Your task to perform on an android device: turn pop-ups on in chrome Image 0: 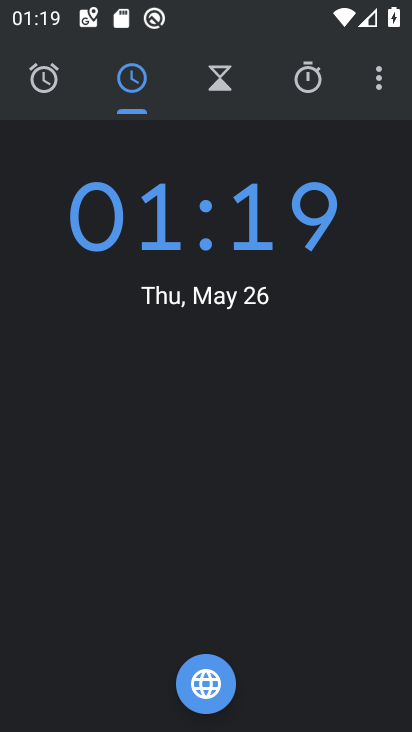
Step 0: press home button
Your task to perform on an android device: turn pop-ups on in chrome Image 1: 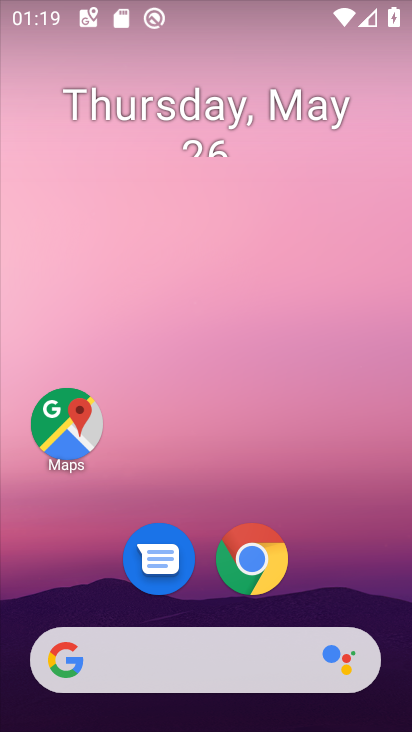
Step 1: click (257, 550)
Your task to perform on an android device: turn pop-ups on in chrome Image 2: 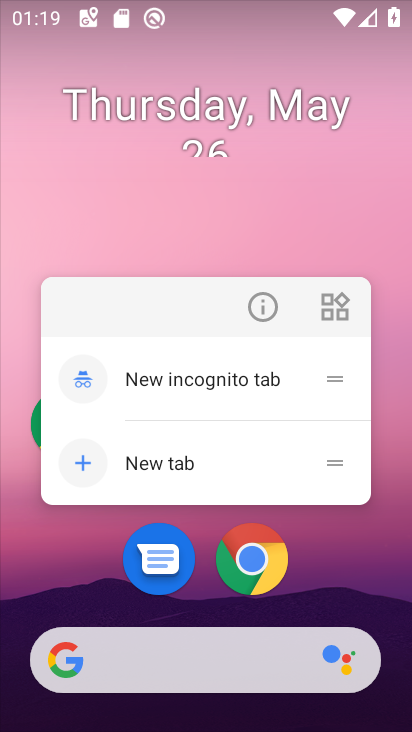
Step 2: click (260, 571)
Your task to perform on an android device: turn pop-ups on in chrome Image 3: 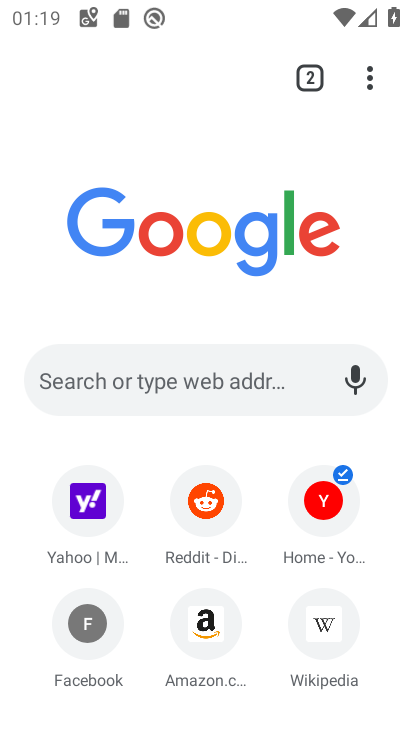
Step 3: click (369, 81)
Your task to perform on an android device: turn pop-ups on in chrome Image 4: 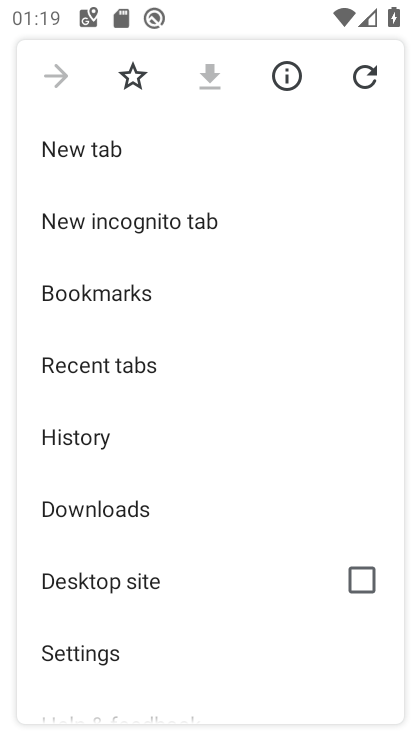
Step 4: click (119, 657)
Your task to perform on an android device: turn pop-ups on in chrome Image 5: 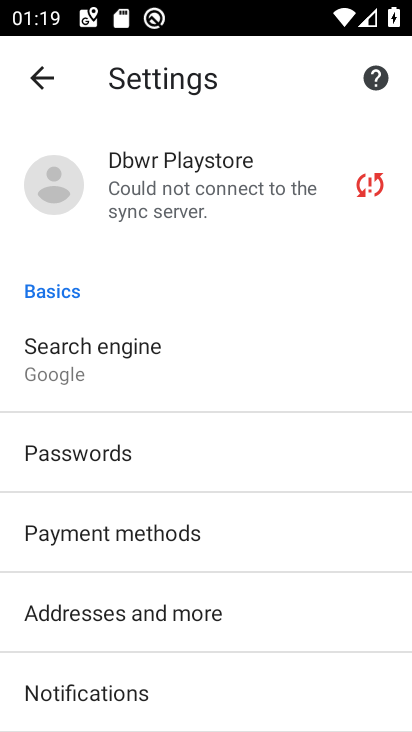
Step 5: drag from (250, 382) to (258, 77)
Your task to perform on an android device: turn pop-ups on in chrome Image 6: 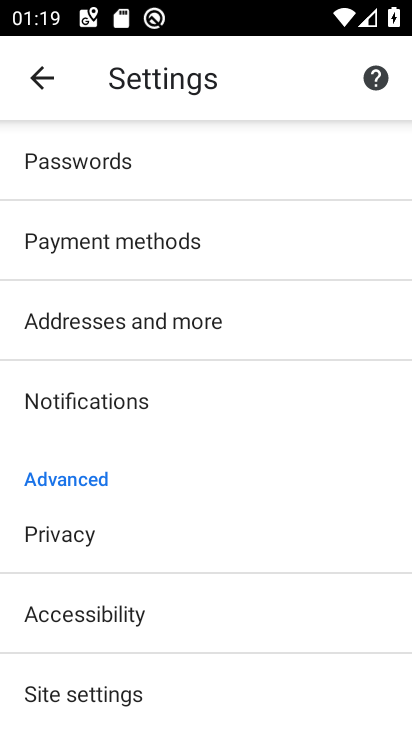
Step 6: drag from (245, 534) to (244, 236)
Your task to perform on an android device: turn pop-ups on in chrome Image 7: 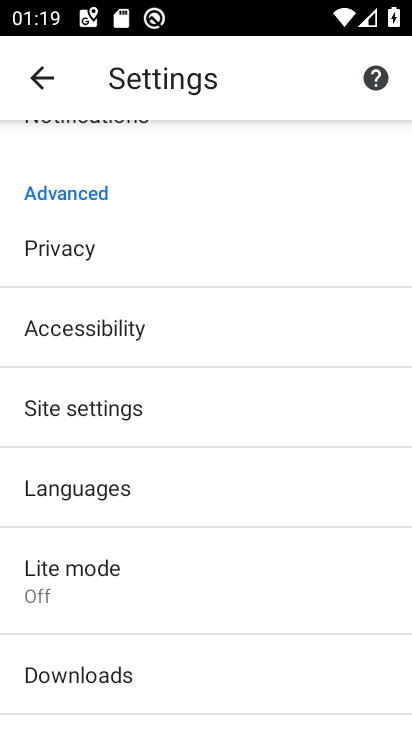
Step 7: click (108, 402)
Your task to perform on an android device: turn pop-ups on in chrome Image 8: 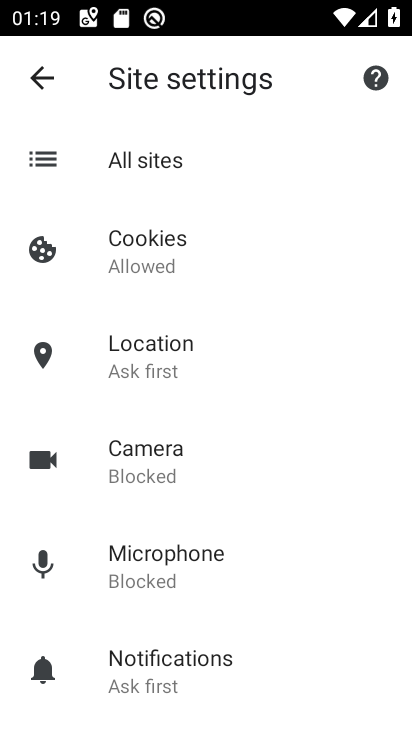
Step 8: drag from (297, 623) to (270, 233)
Your task to perform on an android device: turn pop-ups on in chrome Image 9: 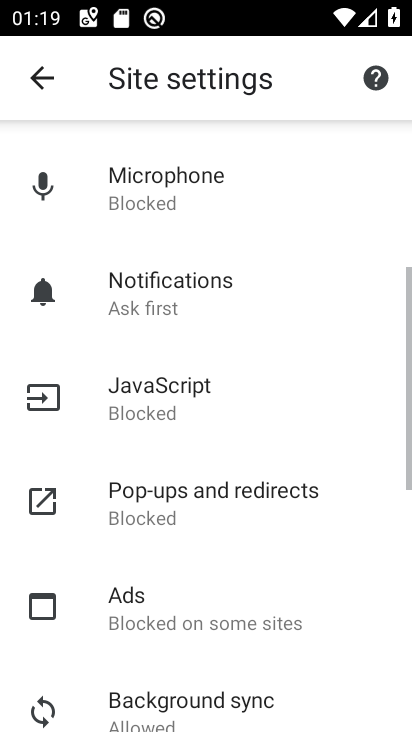
Step 9: click (234, 510)
Your task to perform on an android device: turn pop-ups on in chrome Image 10: 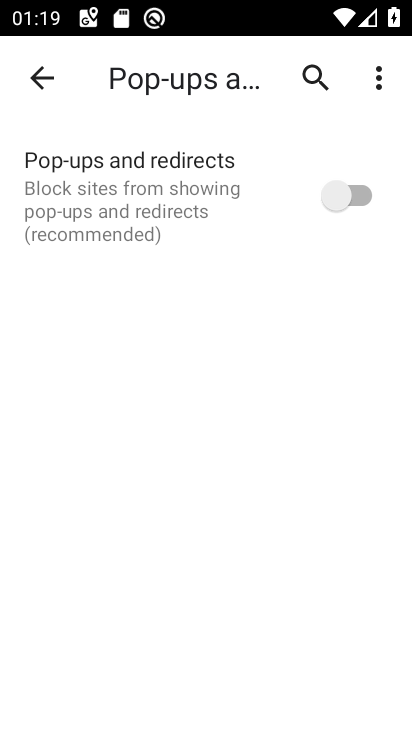
Step 10: click (352, 187)
Your task to perform on an android device: turn pop-ups on in chrome Image 11: 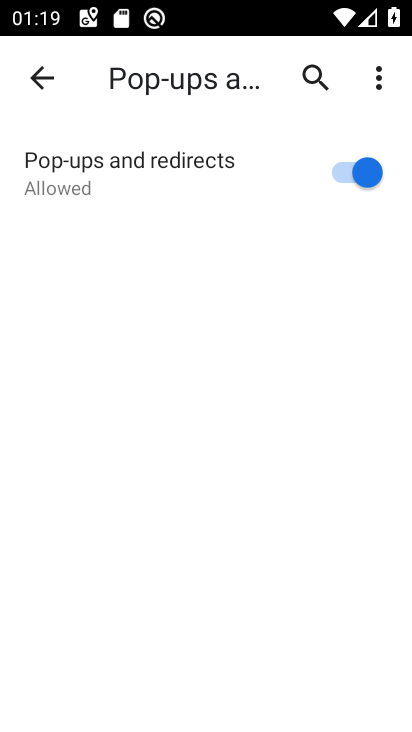
Step 11: task complete